Your task to perform on an android device: open app "The Home Depot" (install if not already installed) Image 0: 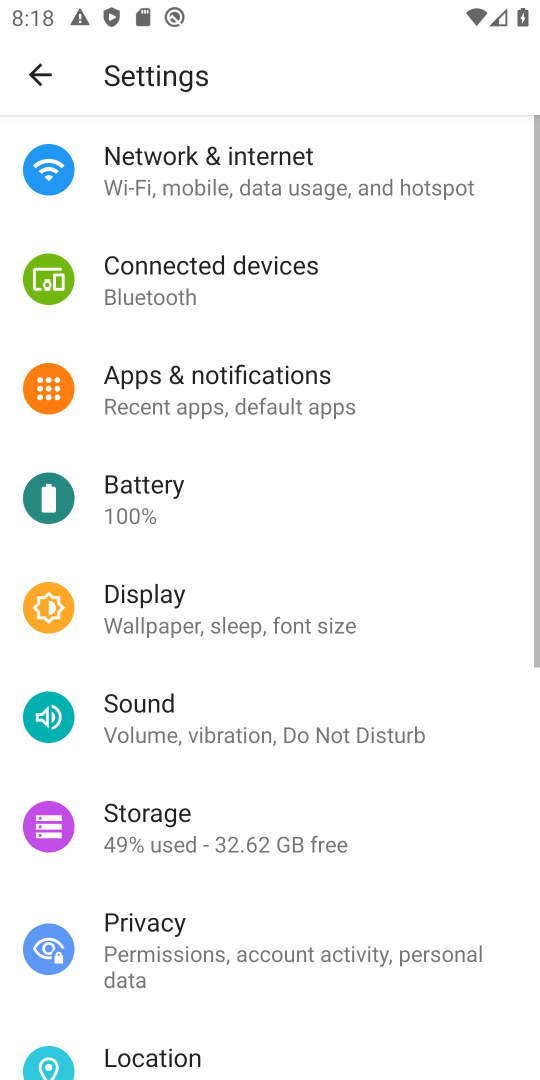
Step 0: press home button
Your task to perform on an android device: open app "The Home Depot" (install if not already installed) Image 1: 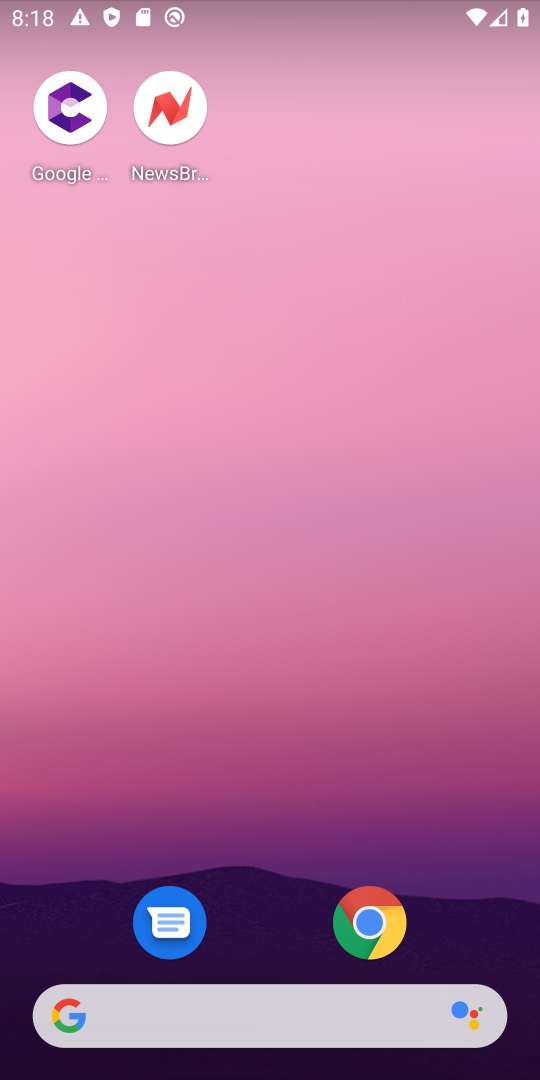
Step 1: drag from (261, 1048) to (244, 133)
Your task to perform on an android device: open app "The Home Depot" (install if not already installed) Image 2: 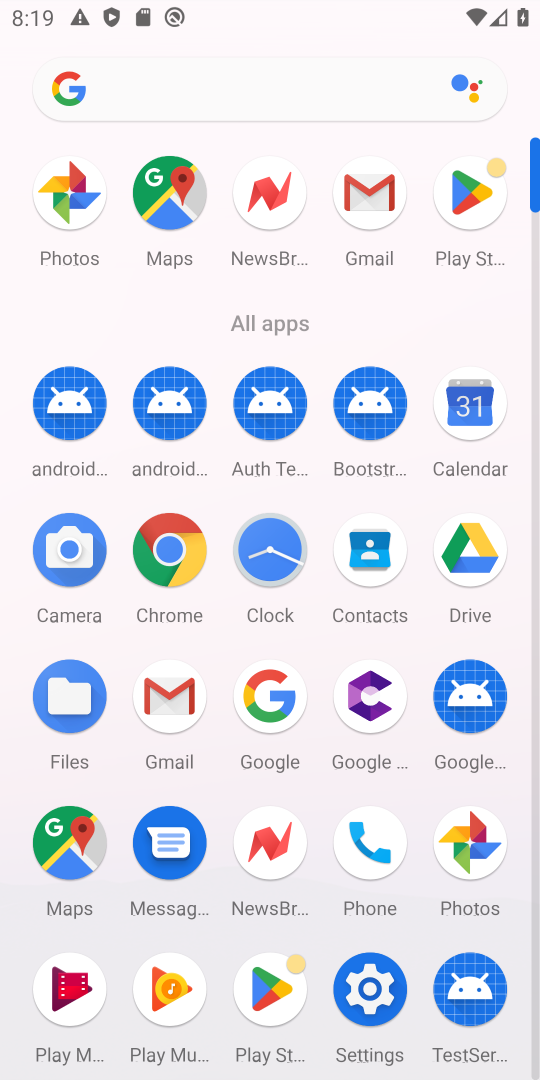
Step 2: click (265, 979)
Your task to perform on an android device: open app "The Home Depot" (install if not already installed) Image 3: 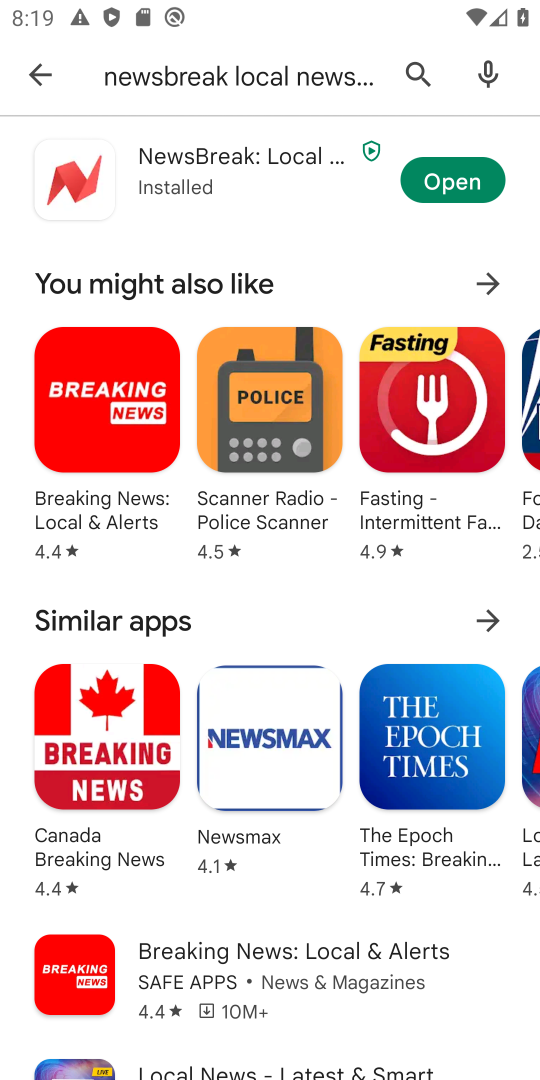
Step 3: click (414, 74)
Your task to perform on an android device: open app "The Home Depot" (install if not already installed) Image 4: 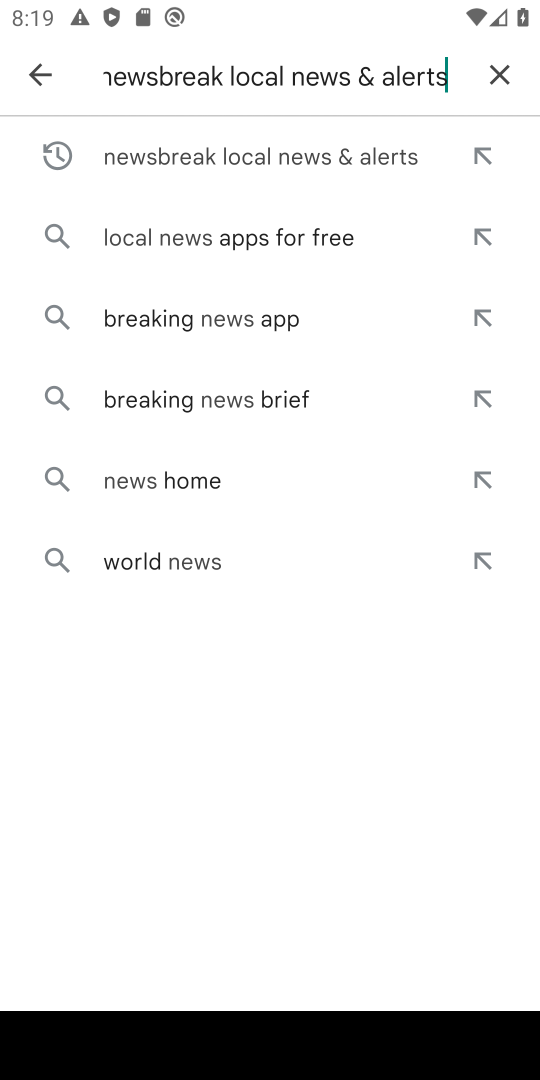
Step 4: click (500, 69)
Your task to perform on an android device: open app "The Home Depot" (install if not already installed) Image 5: 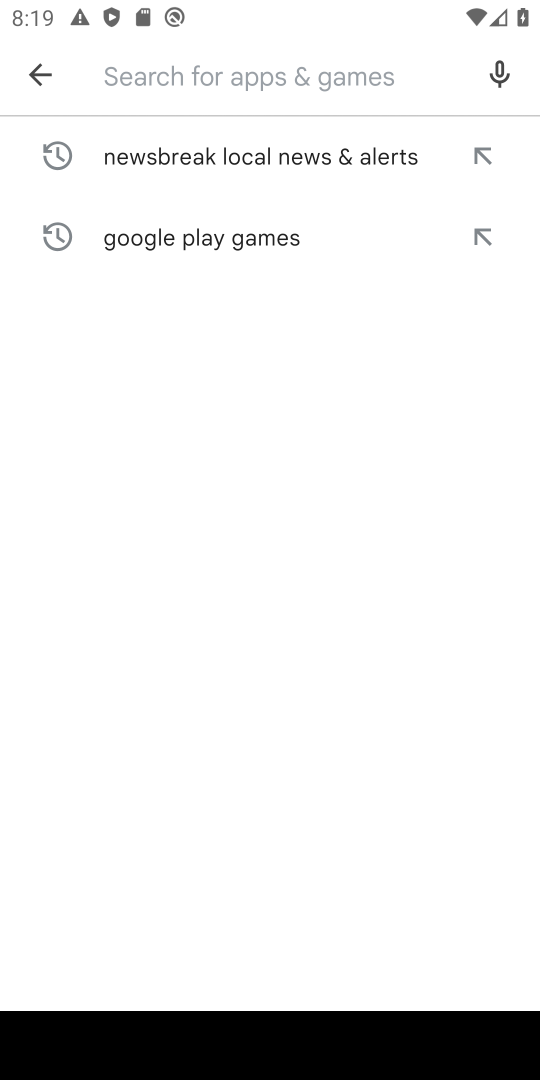
Step 5: type "The Home Depot"
Your task to perform on an android device: open app "The Home Depot" (install if not already installed) Image 6: 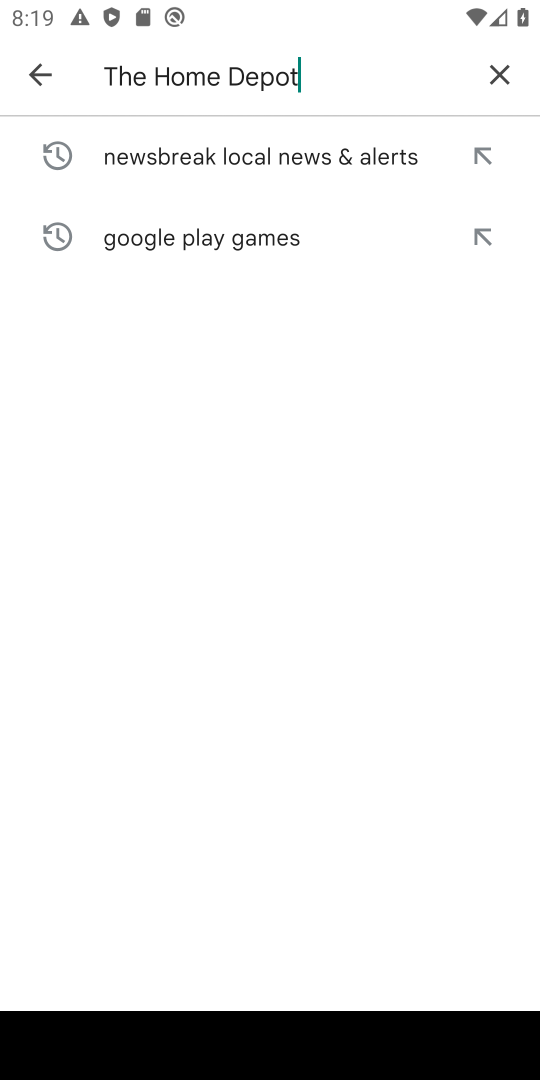
Step 6: type ""
Your task to perform on an android device: open app "The Home Depot" (install if not already installed) Image 7: 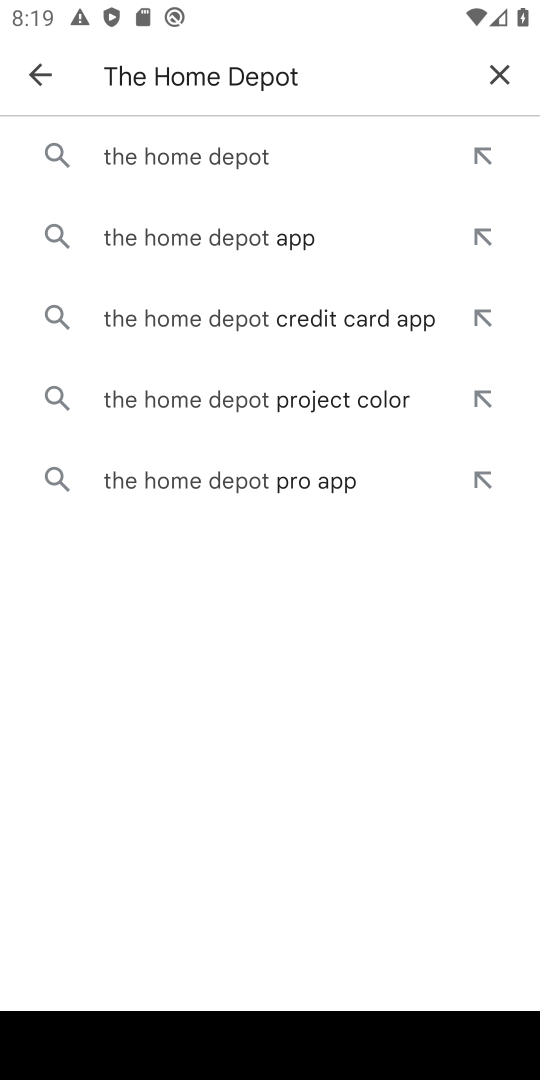
Step 7: click (201, 159)
Your task to perform on an android device: open app "The Home Depot" (install if not already installed) Image 8: 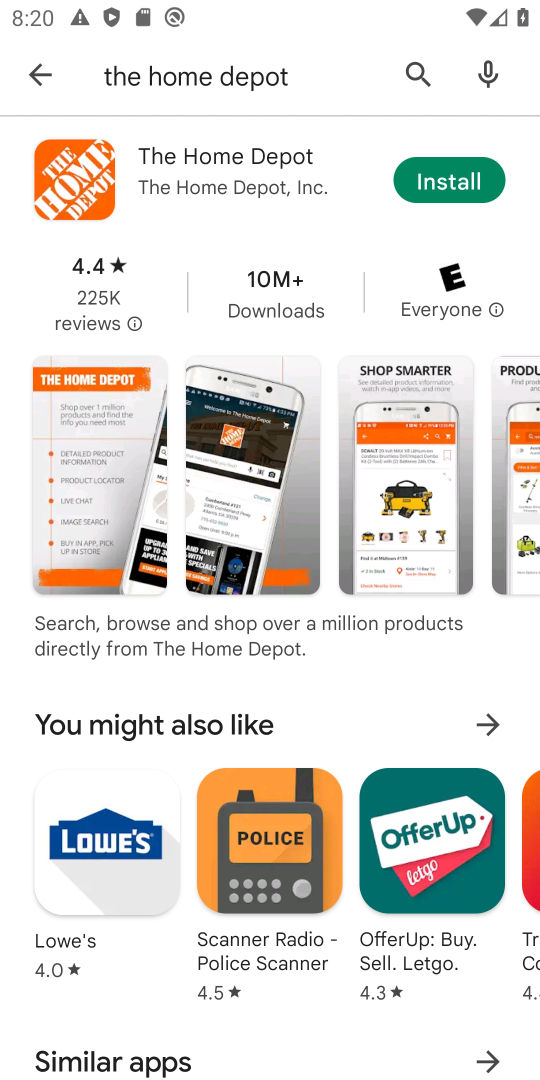
Step 8: task complete